Your task to perform on an android device: open app "Firefox Browser" (install if not already installed), go to login, and select forgot password Image 0: 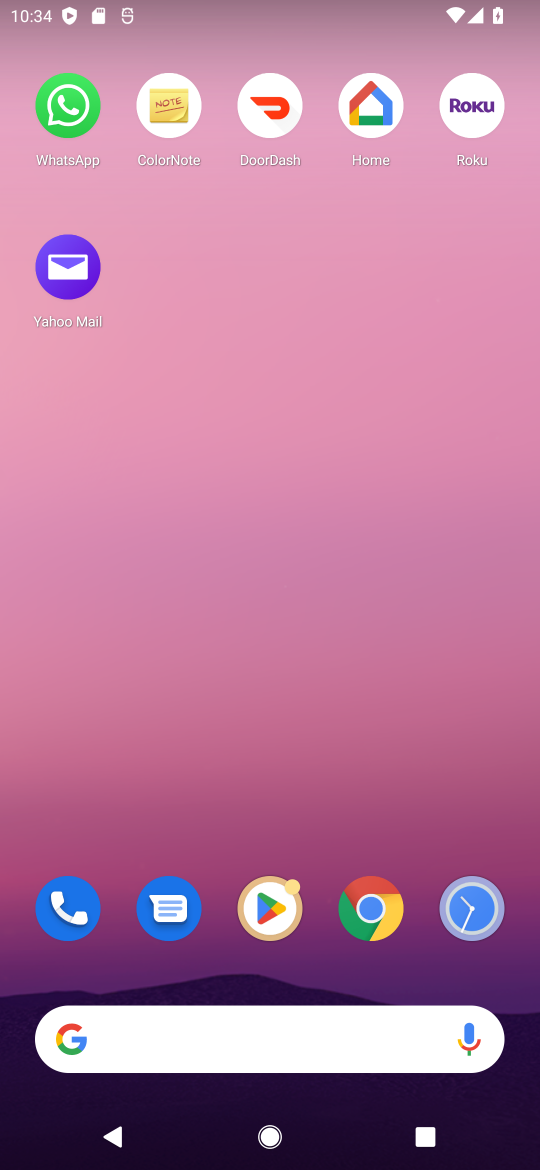
Step 0: drag from (291, 977) to (71, 92)
Your task to perform on an android device: open app "Firefox Browser" (install if not already installed), go to login, and select forgot password Image 1: 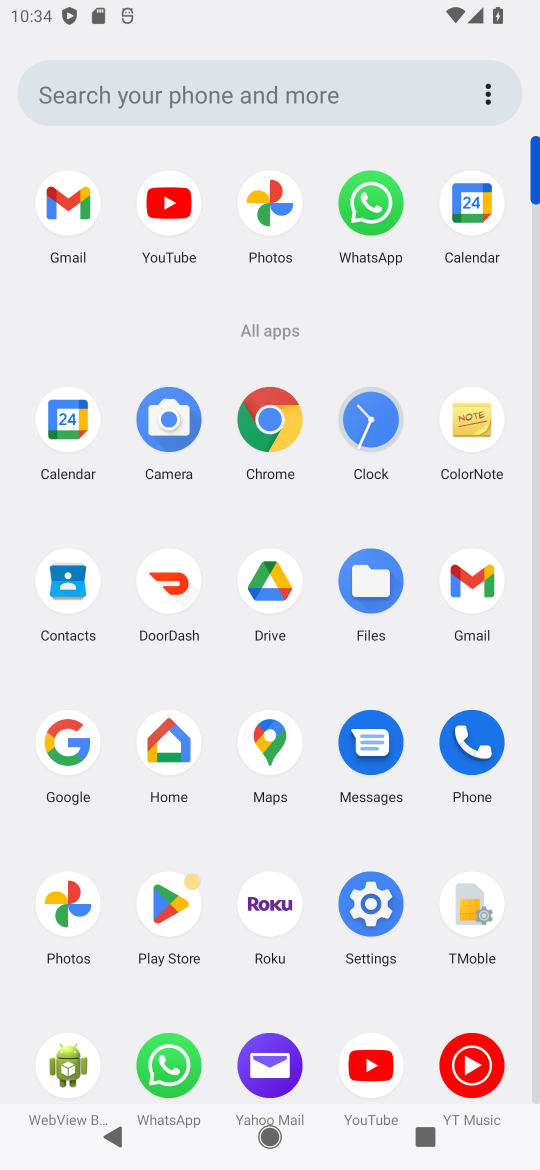
Step 1: click (165, 937)
Your task to perform on an android device: open app "Firefox Browser" (install if not already installed), go to login, and select forgot password Image 2: 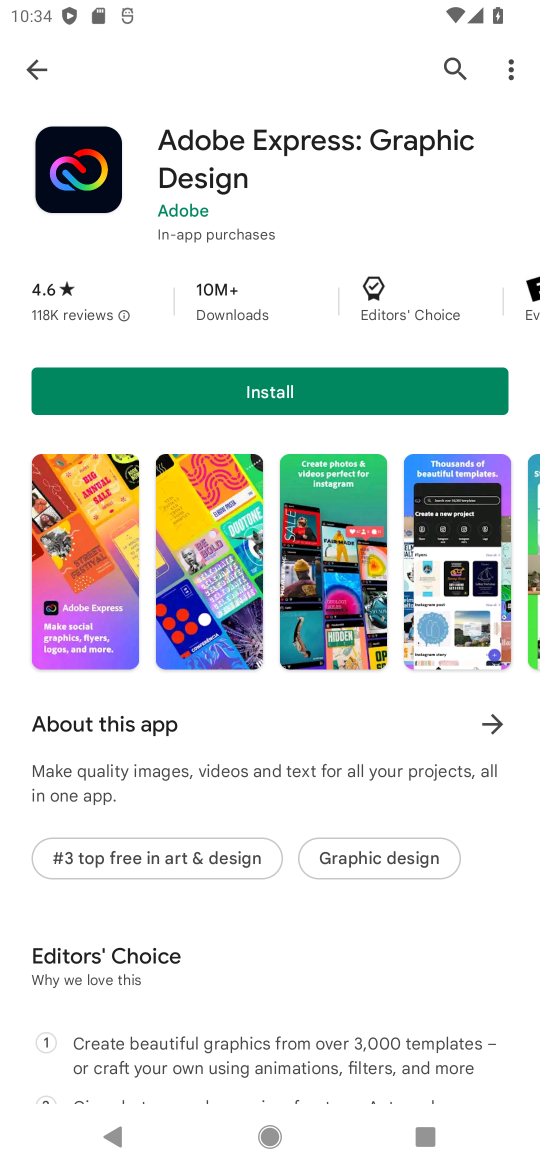
Step 2: click (23, 63)
Your task to perform on an android device: open app "Firefox Browser" (install if not already installed), go to login, and select forgot password Image 3: 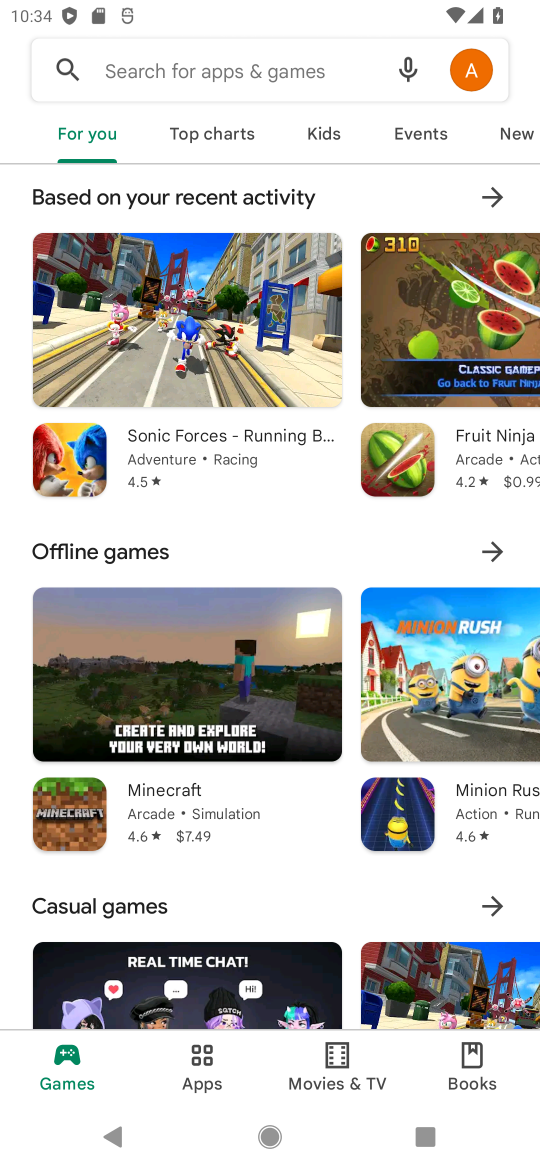
Step 3: click (243, 56)
Your task to perform on an android device: open app "Firefox Browser" (install if not already installed), go to login, and select forgot password Image 4: 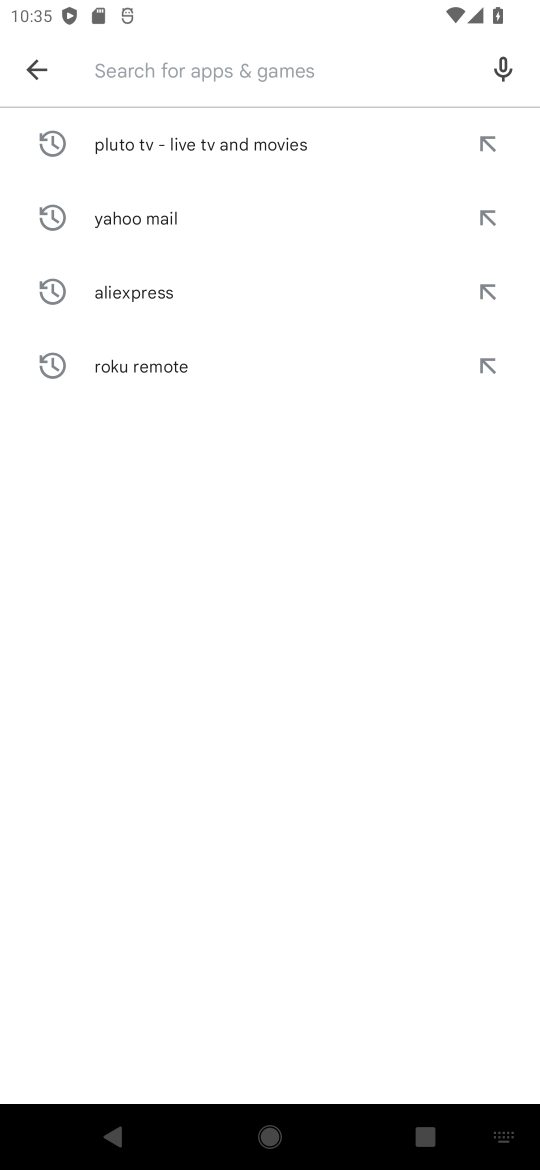
Step 4: type "Firefox Browser"
Your task to perform on an android device: open app "Firefox Browser" (install if not already installed), go to login, and select forgot password Image 5: 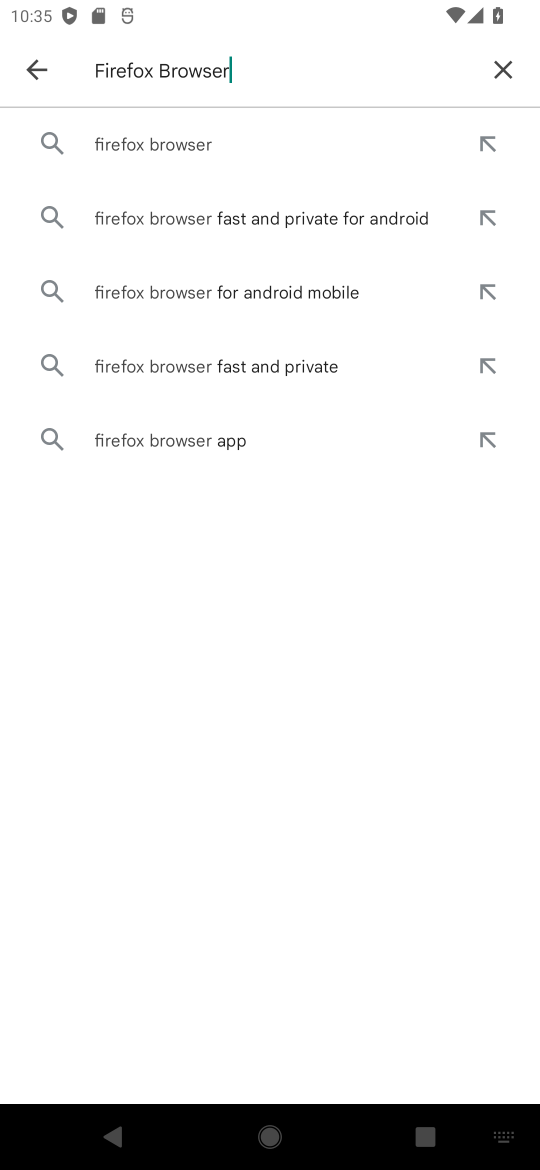
Step 5: click (144, 159)
Your task to perform on an android device: open app "Firefox Browser" (install if not already installed), go to login, and select forgot password Image 6: 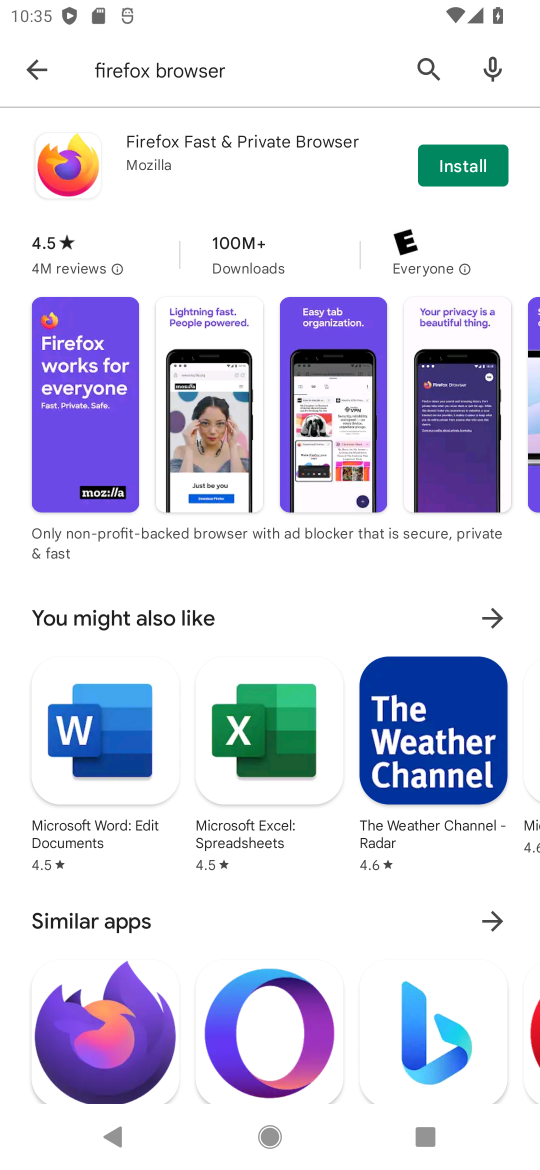
Step 6: click (462, 141)
Your task to perform on an android device: open app "Firefox Browser" (install if not already installed), go to login, and select forgot password Image 7: 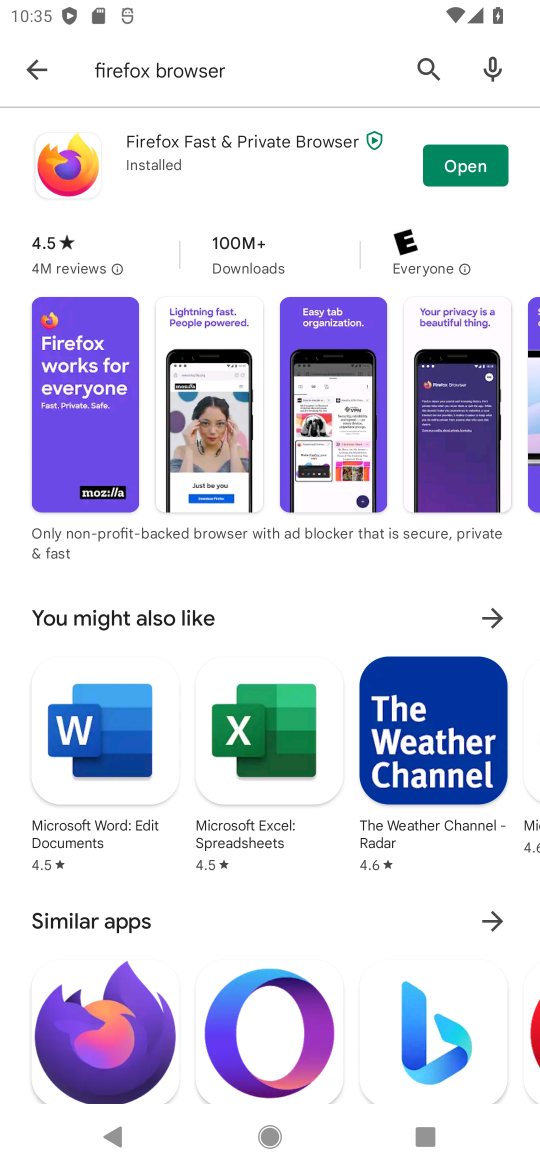
Step 7: click (485, 159)
Your task to perform on an android device: open app "Firefox Browser" (install if not already installed), go to login, and select forgot password Image 8: 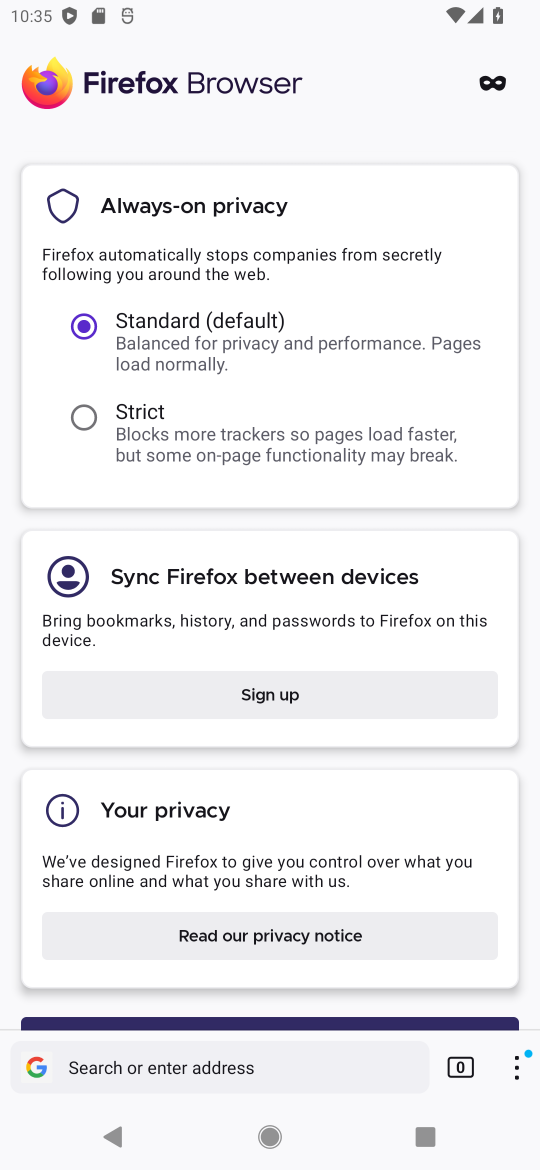
Step 8: task complete